Your task to perform on an android device: see creations saved in the google photos Image 0: 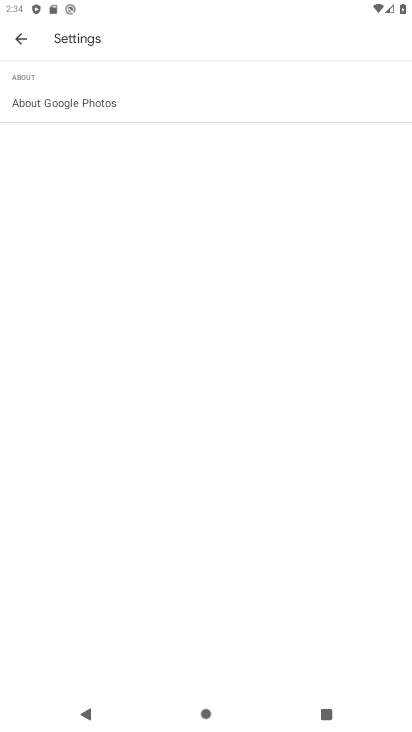
Step 0: press home button
Your task to perform on an android device: see creations saved in the google photos Image 1: 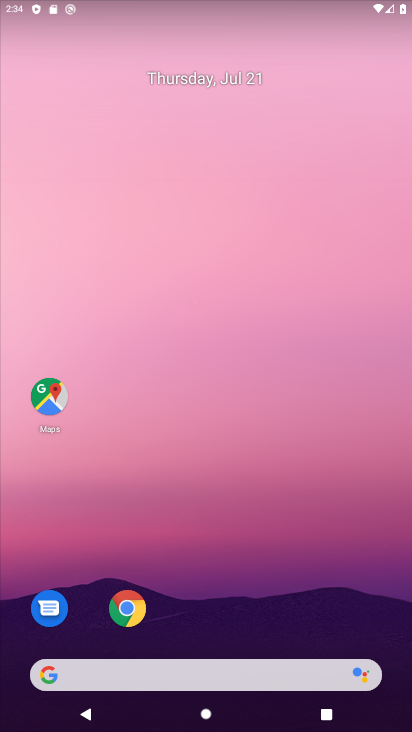
Step 1: click (187, 135)
Your task to perform on an android device: see creations saved in the google photos Image 2: 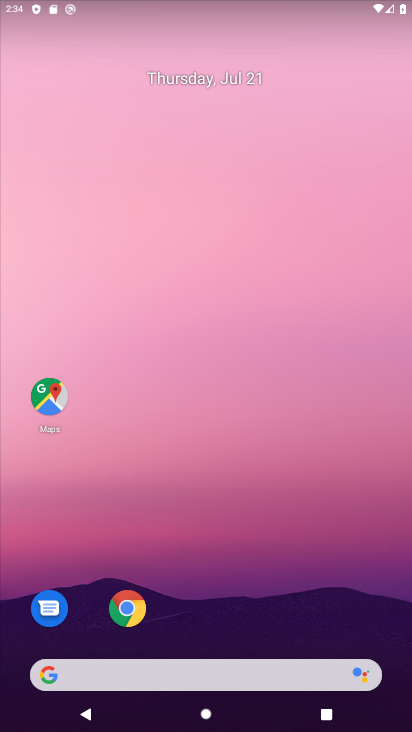
Step 2: drag from (189, 634) to (163, 312)
Your task to perform on an android device: see creations saved in the google photos Image 3: 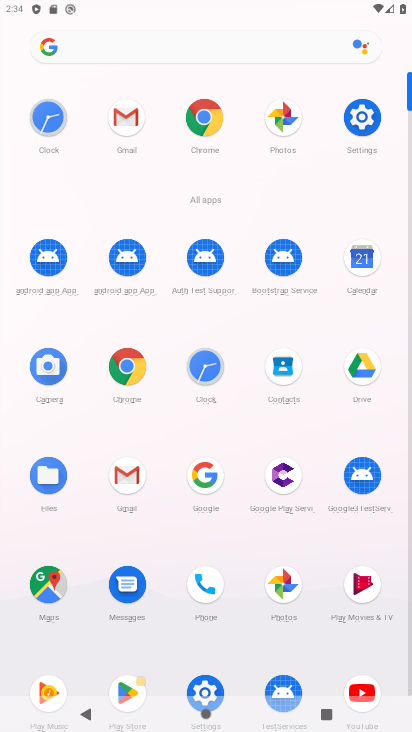
Step 3: click (288, 578)
Your task to perform on an android device: see creations saved in the google photos Image 4: 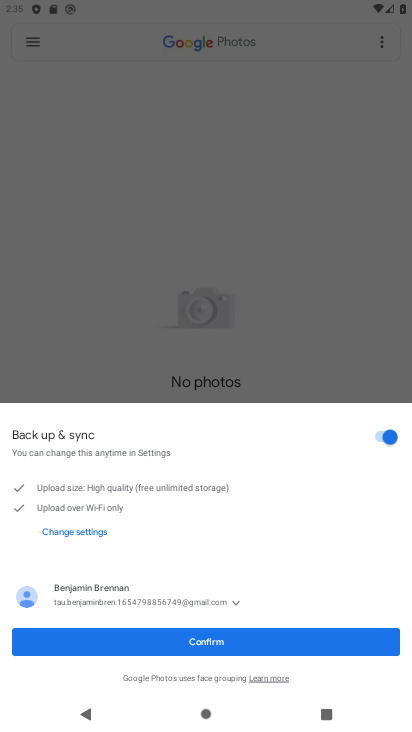
Step 4: click (231, 642)
Your task to perform on an android device: see creations saved in the google photos Image 5: 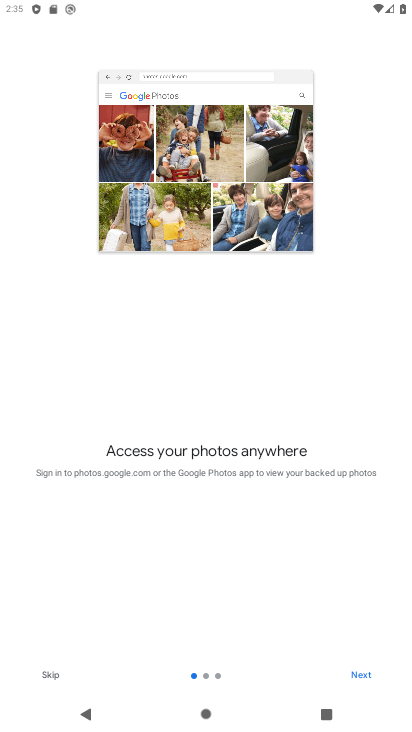
Step 5: click (357, 675)
Your task to perform on an android device: see creations saved in the google photos Image 6: 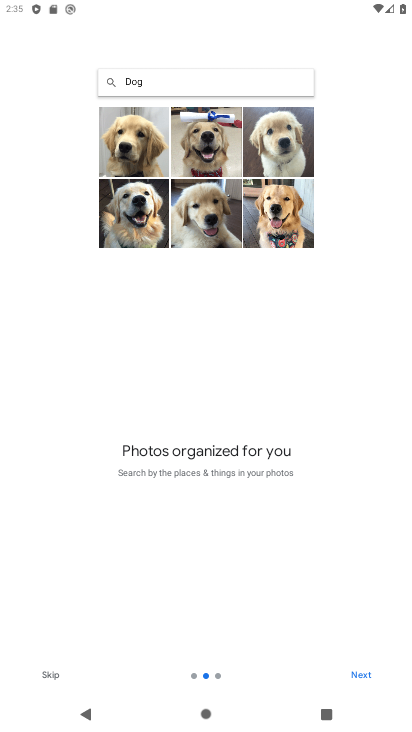
Step 6: click (357, 675)
Your task to perform on an android device: see creations saved in the google photos Image 7: 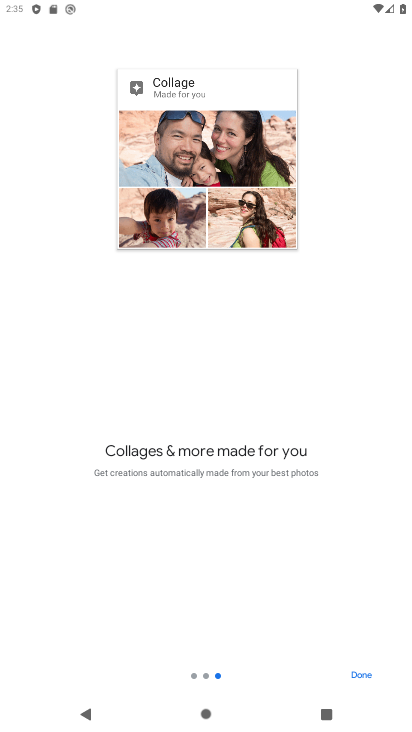
Step 7: click (357, 675)
Your task to perform on an android device: see creations saved in the google photos Image 8: 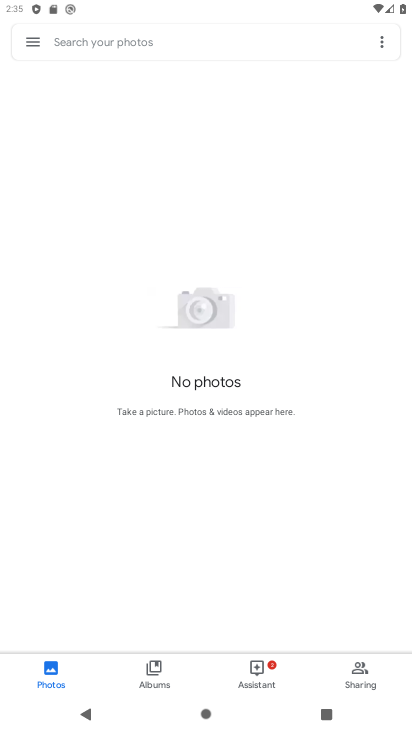
Step 8: click (246, 672)
Your task to perform on an android device: see creations saved in the google photos Image 9: 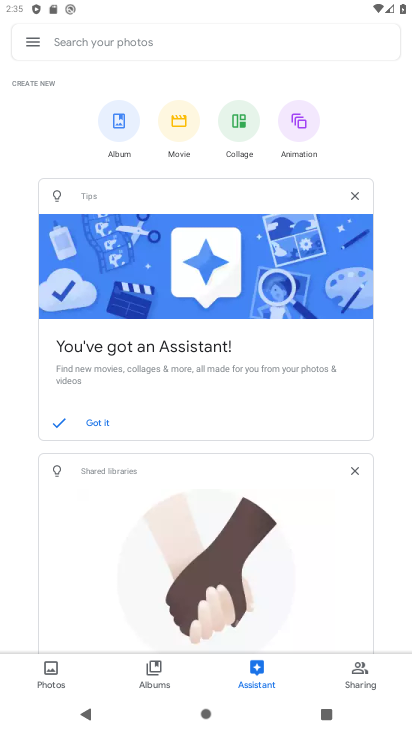
Step 9: task complete